Your task to perform on an android device: Open the calendar app, open the side menu, and click the "Day" option Image 0: 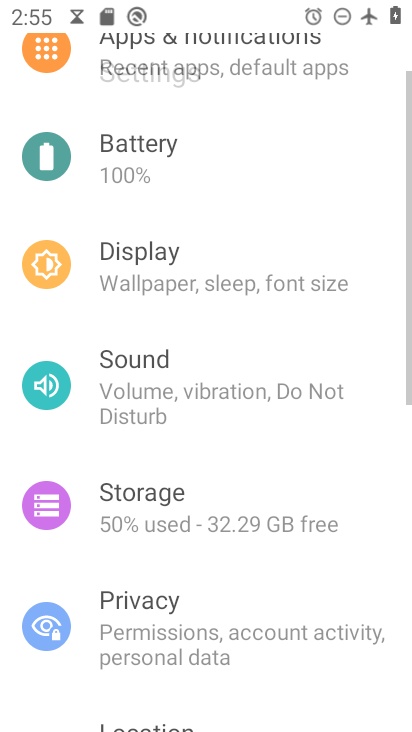
Step 0: drag from (275, 580) to (367, 0)
Your task to perform on an android device: Open the calendar app, open the side menu, and click the "Day" option Image 1: 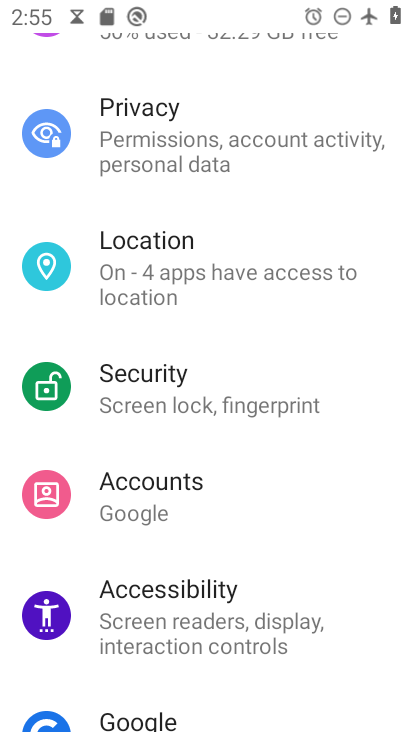
Step 1: press home button
Your task to perform on an android device: Open the calendar app, open the side menu, and click the "Day" option Image 2: 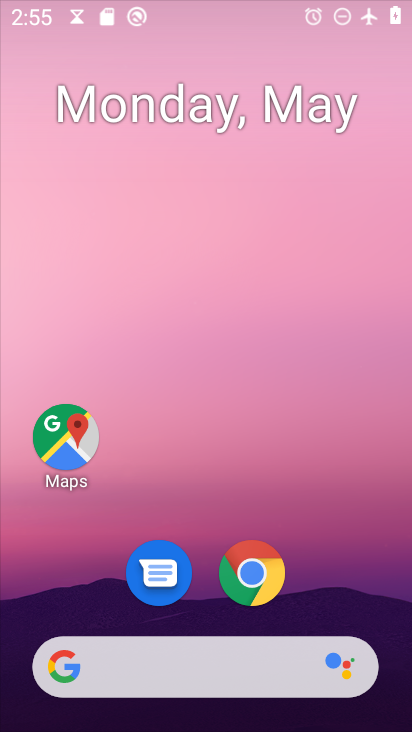
Step 2: drag from (270, 636) to (323, 0)
Your task to perform on an android device: Open the calendar app, open the side menu, and click the "Day" option Image 3: 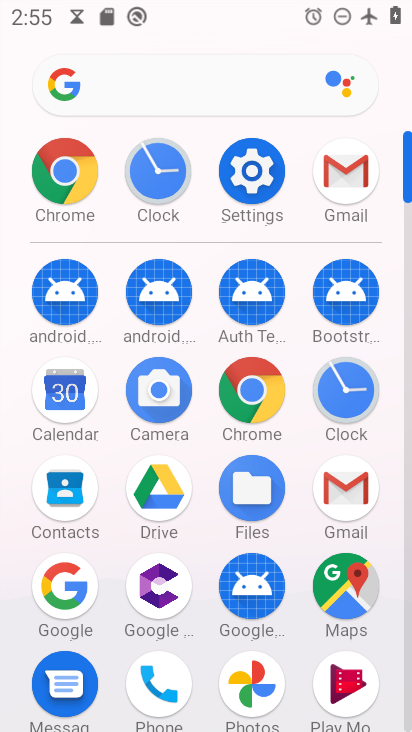
Step 3: drag from (314, 597) to (325, 414)
Your task to perform on an android device: Open the calendar app, open the side menu, and click the "Day" option Image 4: 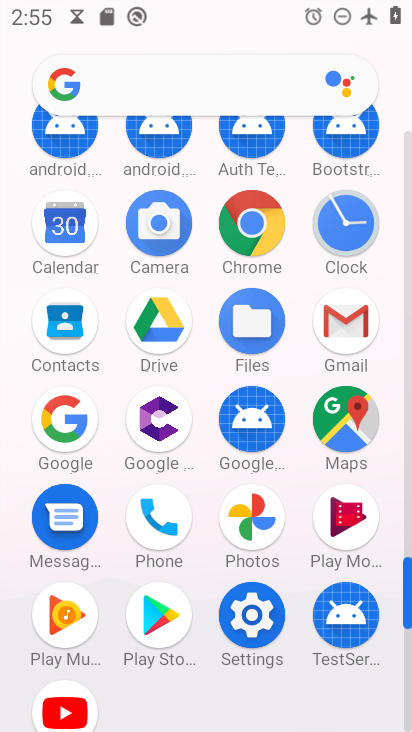
Step 4: click (67, 213)
Your task to perform on an android device: Open the calendar app, open the side menu, and click the "Day" option Image 5: 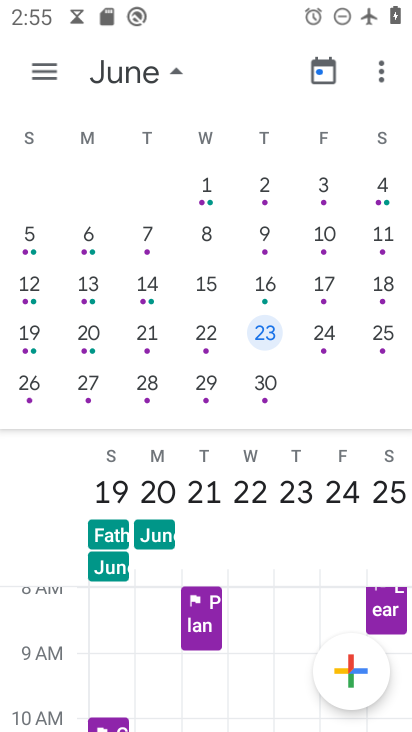
Step 5: click (34, 71)
Your task to perform on an android device: Open the calendar app, open the side menu, and click the "Day" option Image 6: 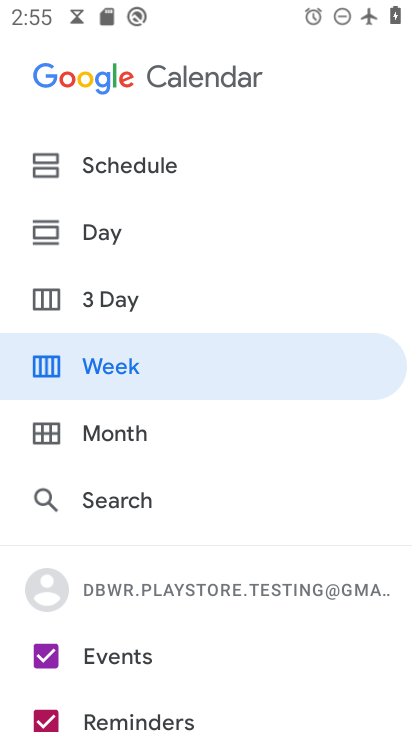
Step 6: click (130, 222)
Your task to perform on an android device: Open the calendar app, open the side menu, and click the "Day" option Image 7: 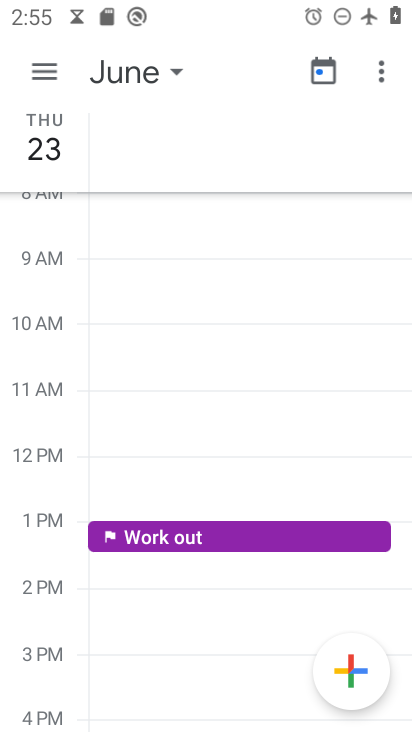
Step 7: task complete